Your task to perform on an android device: open app "ZOOM Cloud Meetings" (install if not already installed) and go to login screen Image 0: 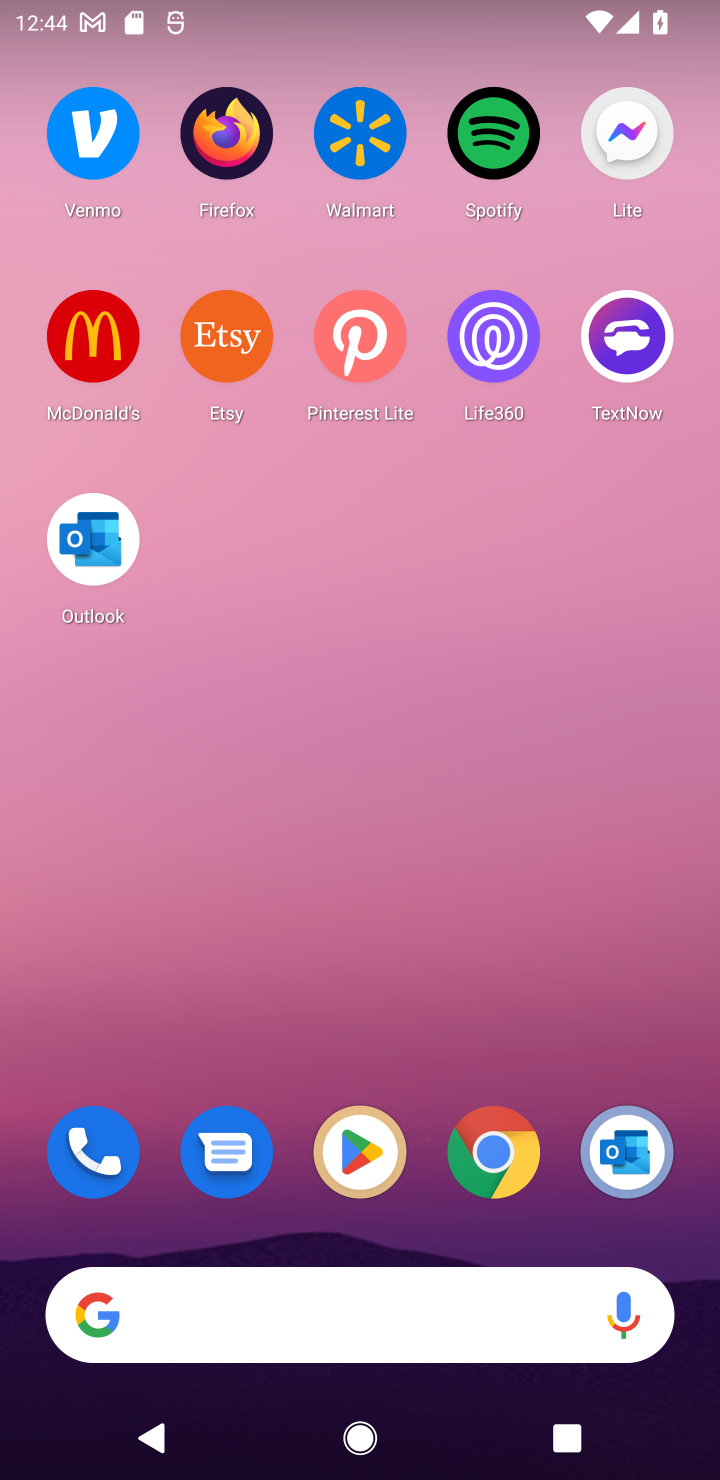
Step 0: press home button
Your task to perform on an android device: open app "ZOOM Cloud Meetings" (install if not already installed) and go to login screen Image 1: 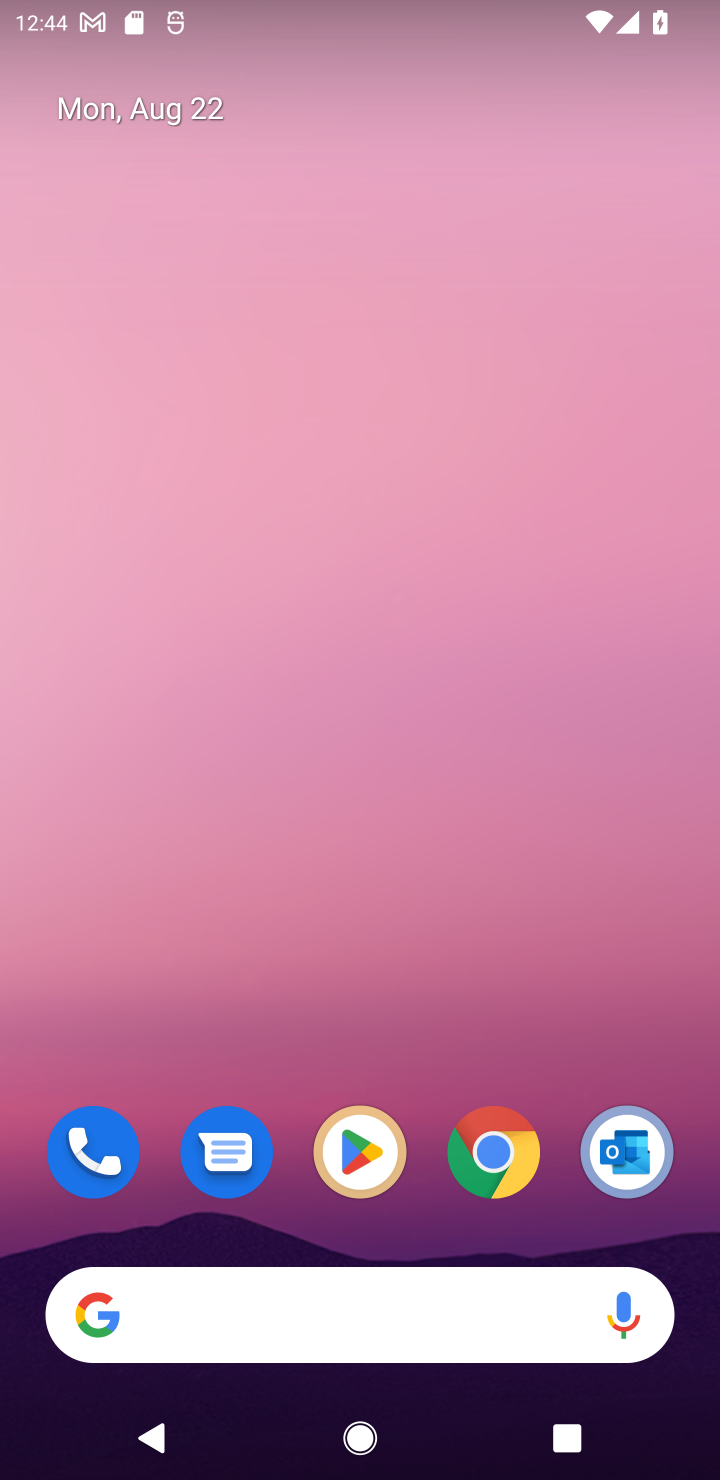
Step 1: click (348, 1139)
Your task to perform on an android device: open app "ZOOM Cloud Meetings" (install if not already installed) and go to login screen Image 2: 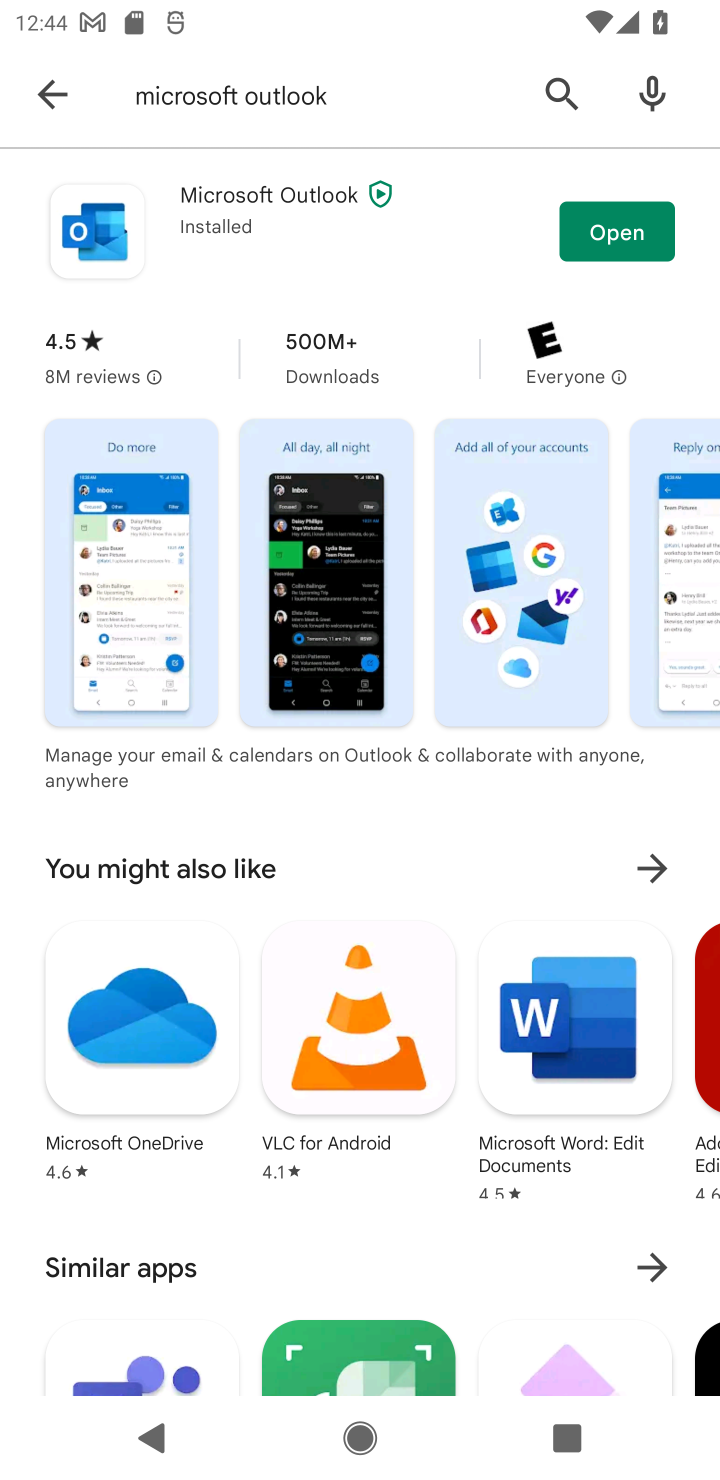
Step 2: click (46, 85)
Your task to perform on an android device: open app "ZOOM Cloud Meetings" (install if not already installed) and go to login screen Image 3: 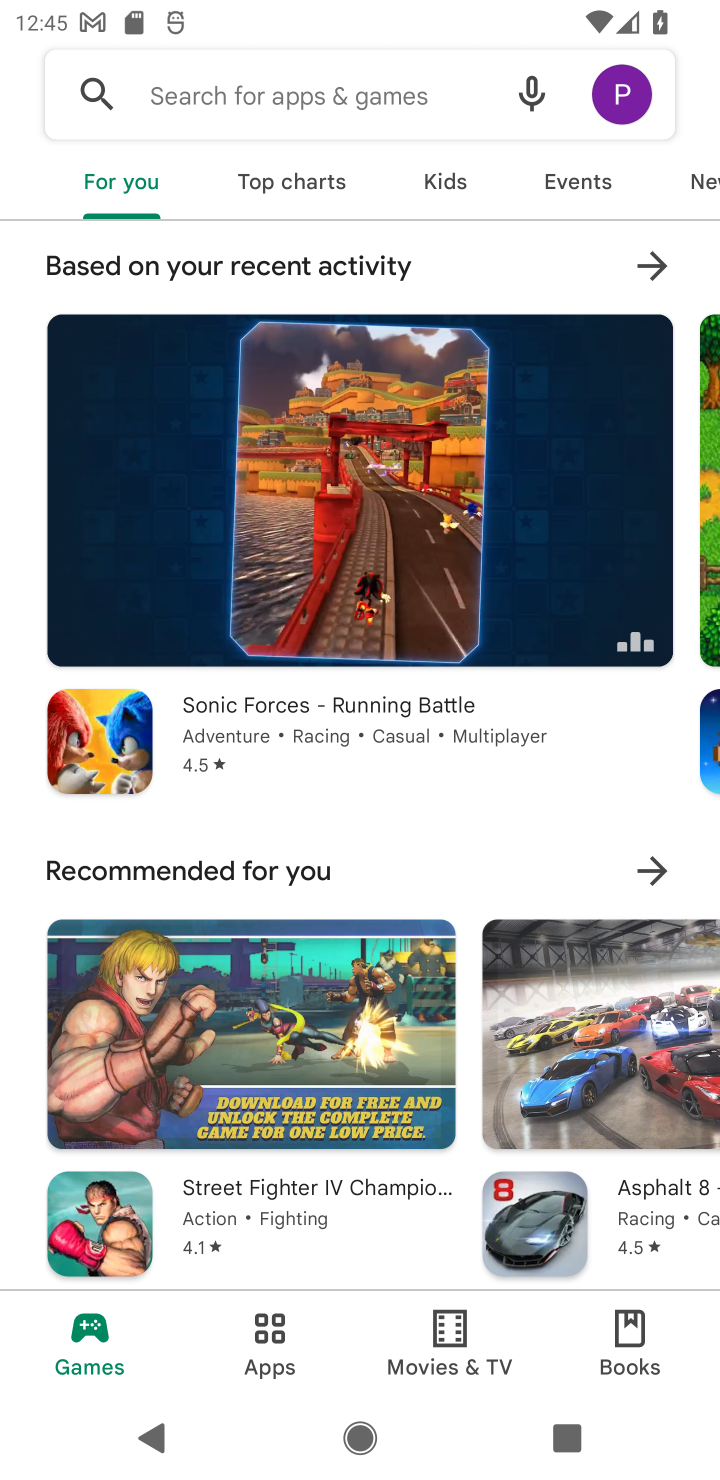
Step 3: click (354, 112)
Your task to perform on an android device: open app "ZOOM Cloud Meetings" (install if not already installed) and go to login screen Image 4: 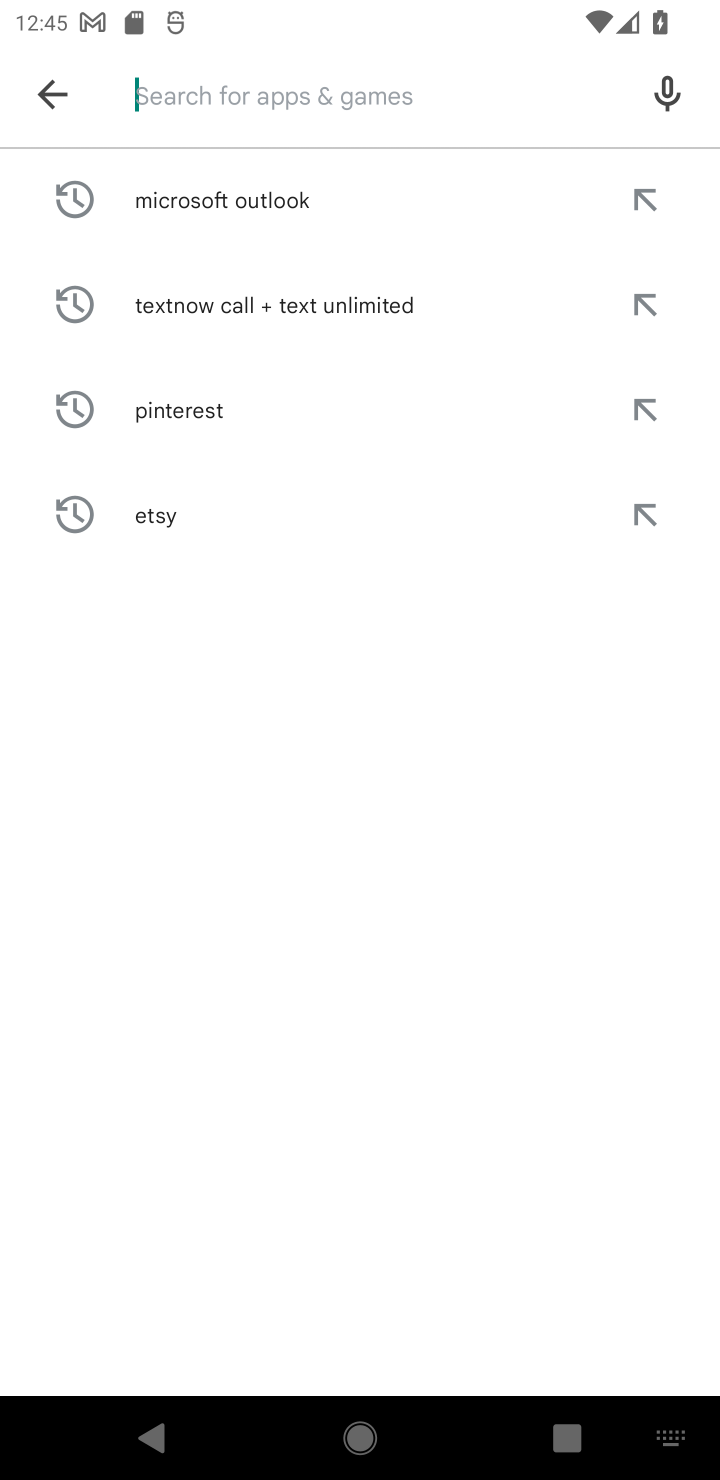
Step 4: type "ZOOM Cloud Meetings"
Your task to perform on an android device: open app "ZOOM Cloud Meetings" (install if not already installed) and go to login screen Image 5: 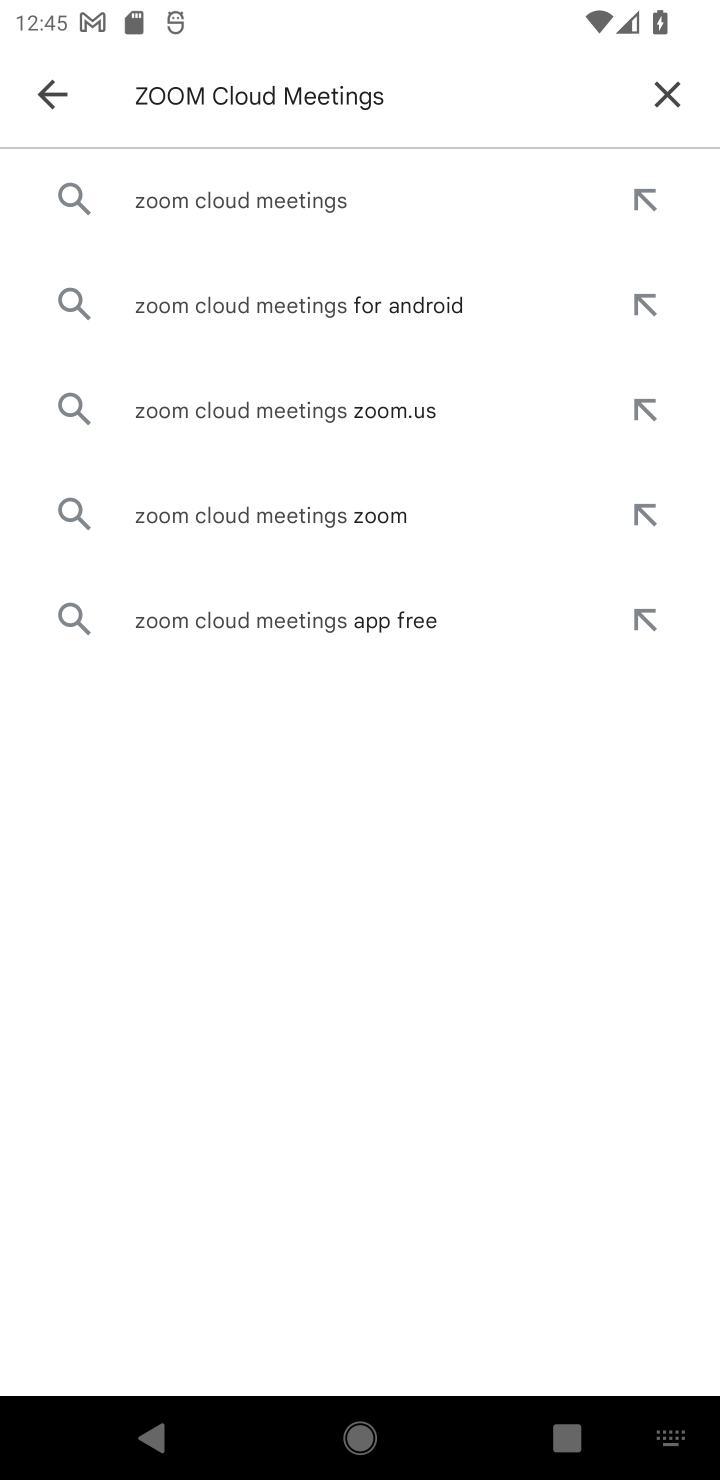
Step 5: click (227, 212)
Your task to perform on an android device: open app "ZOOM Cloud Meetings" (install if not already installed) and go to login screen Image 6: 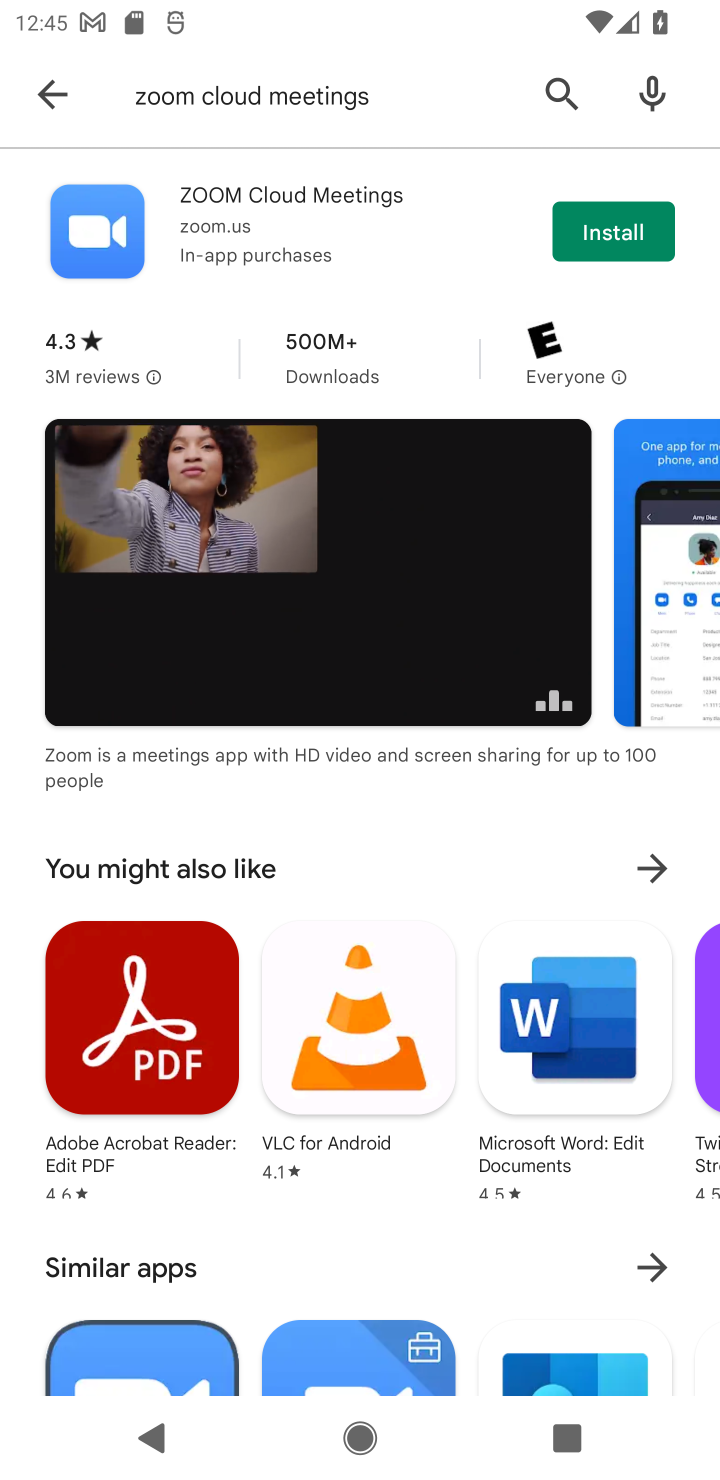
Step 6: click (577, 243)
Your task to perform on an android device: open app "ZOOM Cloud Meetings" (install if not already installed) and go to login screen Image 7: 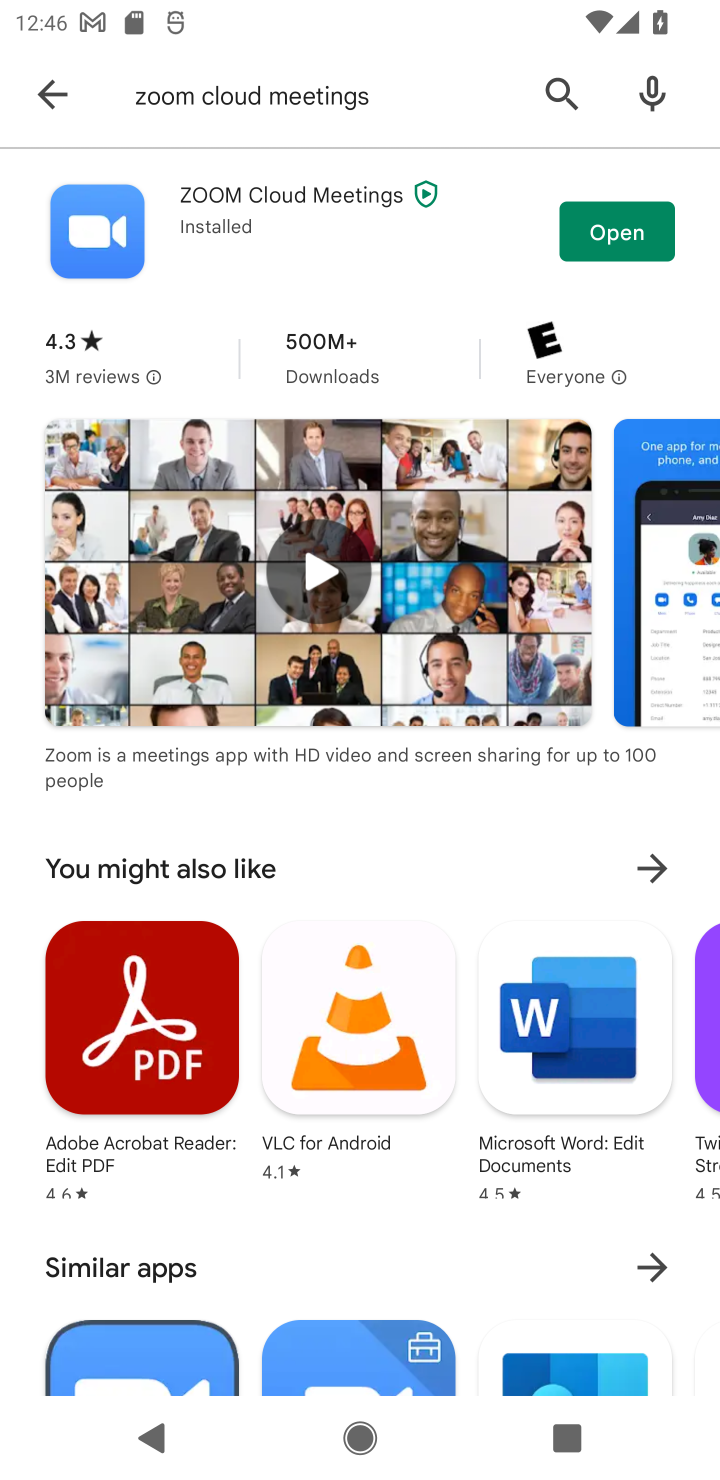
Step 7: click (642, 224)
Your task to perform on an android device: open app "ZOOM Cloud Meetings" (install if not already installed) and go to login screen Image 8: 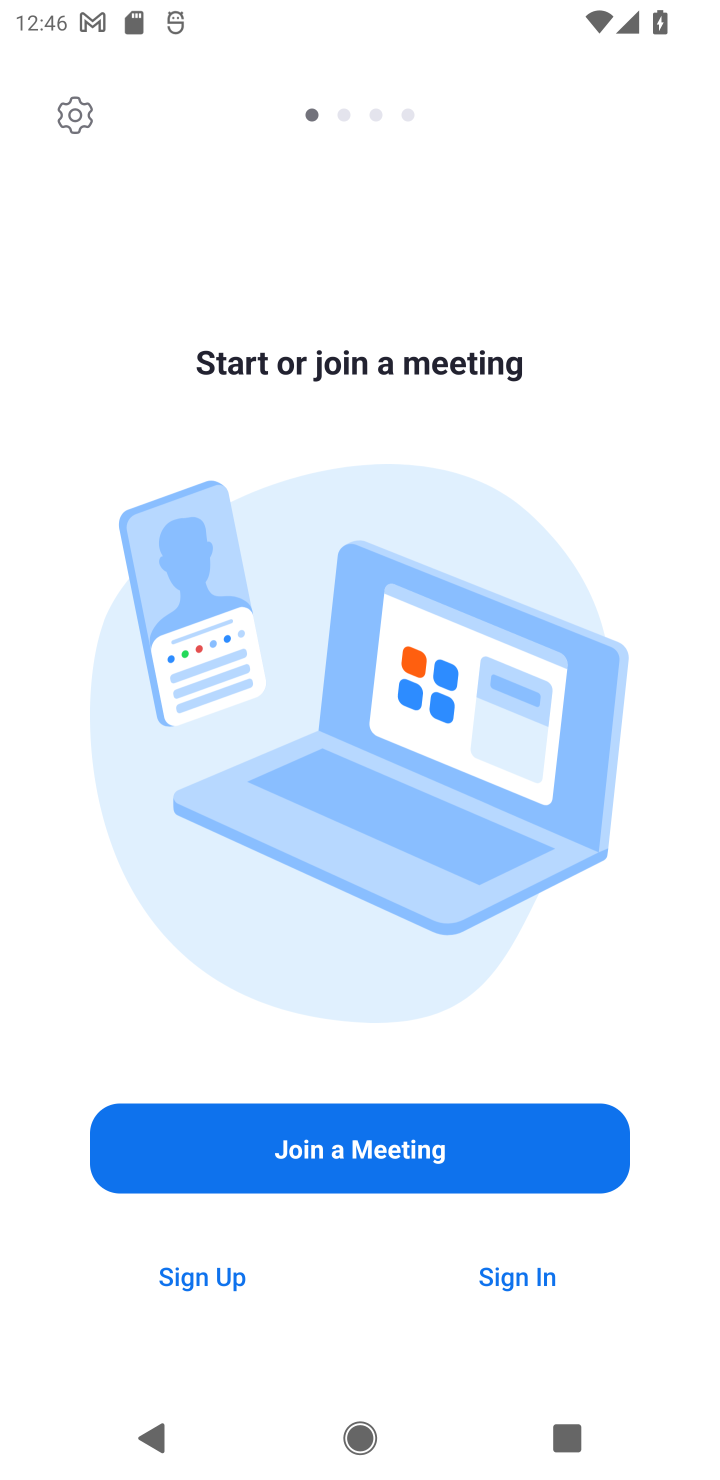
Step 8: task complete